Your task to perform on an android device: add a contact in the contacts app Image 0: 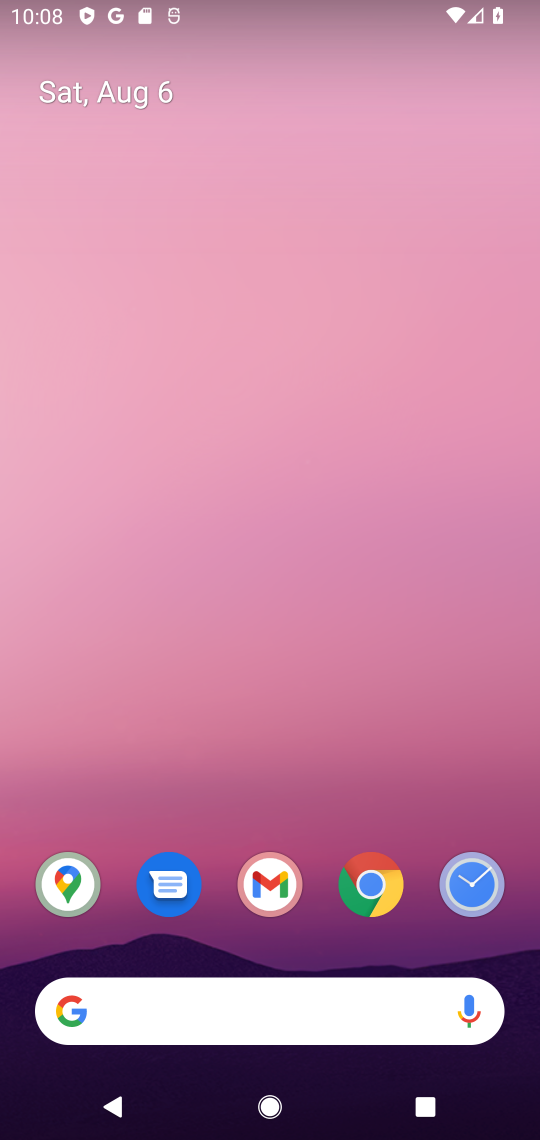
Step 0: drag from (426, 959) to (384, 193)
Your task to perform on an android device: add a contact in the contacts app Image 1: 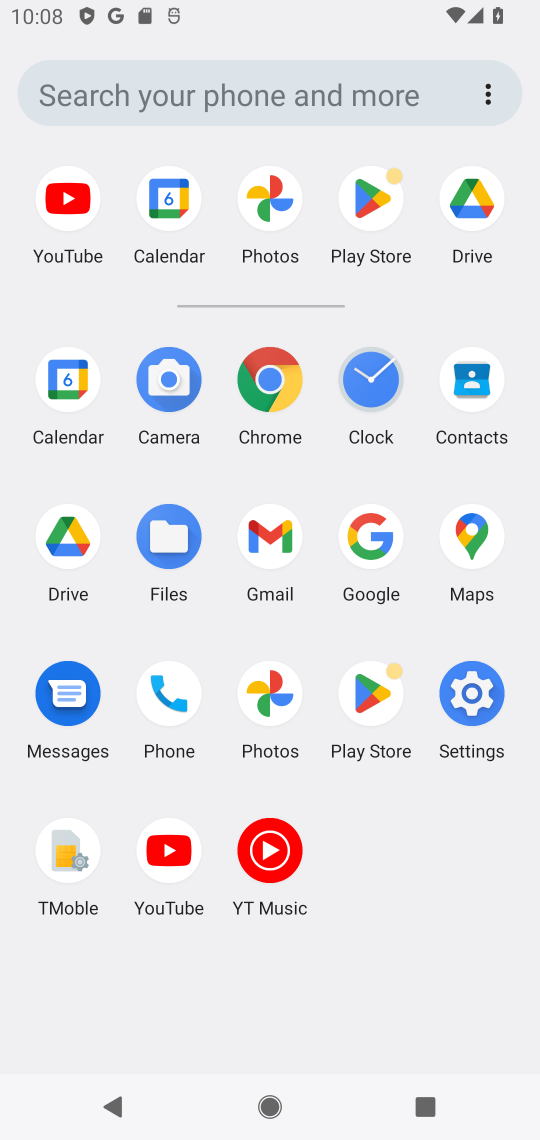
Step 1: click (466, 373)
Your task to perform on an android device: add a contact in the contacts app Image 2: 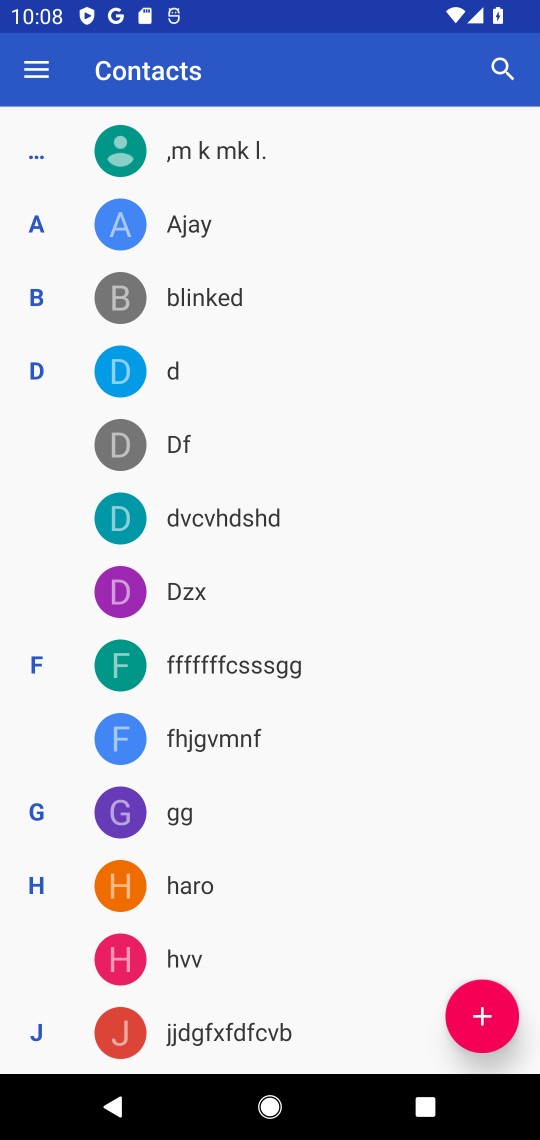
Step 2: click (482, 1015)
Your task to perform on an android device: add a contact in the contacts app Image 3: 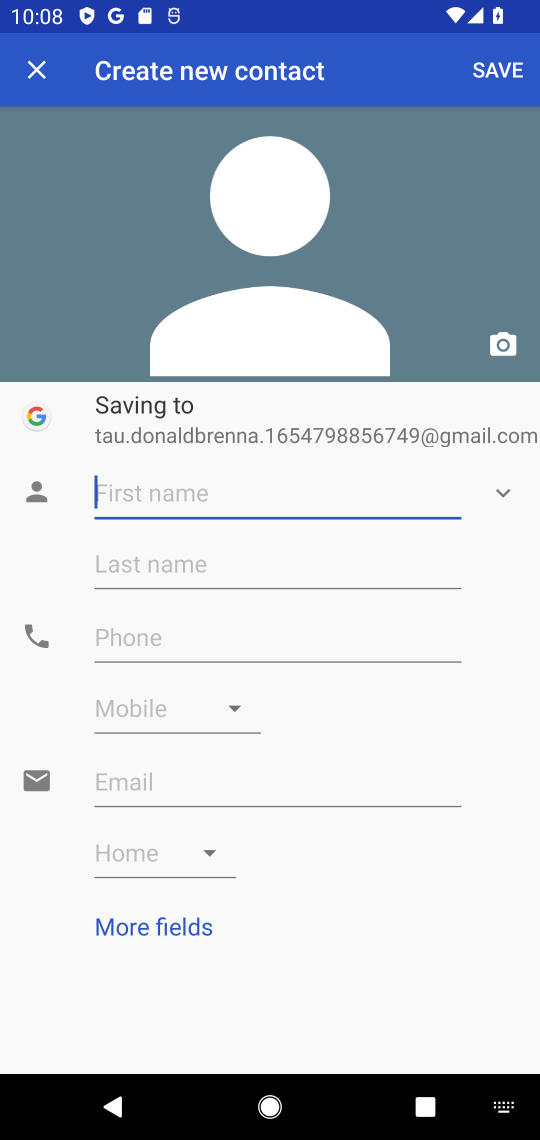
Step 3: type "mnbvsgft"
Your task to perform on an android device: add a contact in the contacts app Image 4: 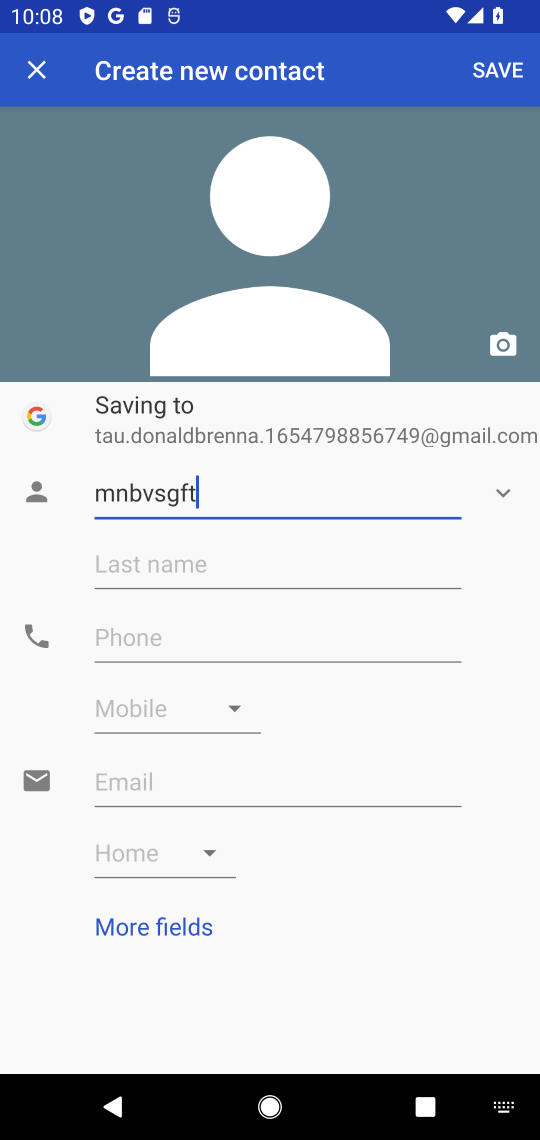
Step 4: click (173, 618)
Your task to perform on an android device: add a contact in the contacts app Image 5: 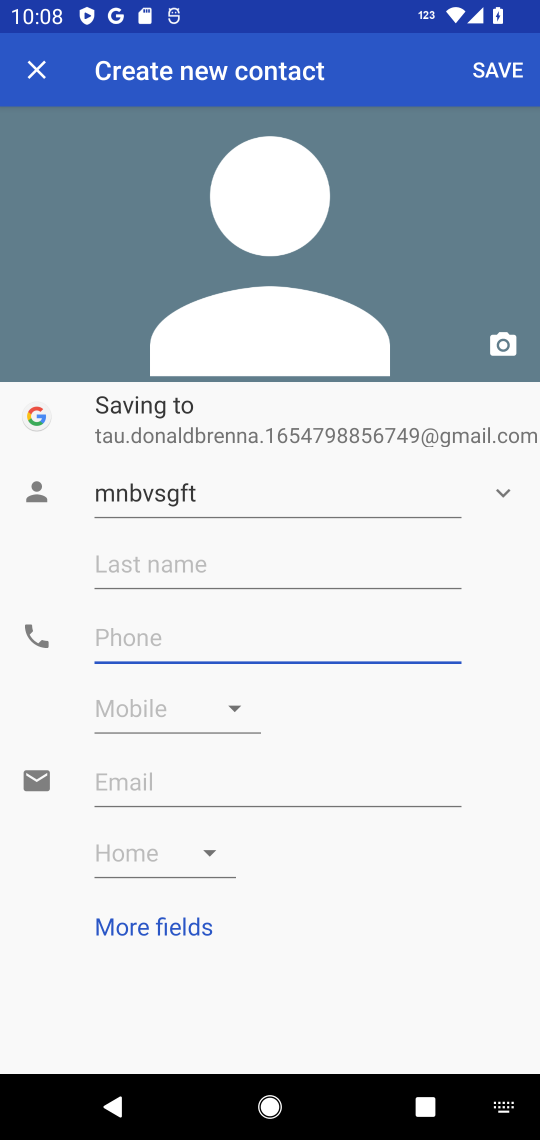
Step 5: type "09876543565"
Your task to perform on an android device: add a contact in the contacts app Image 6: 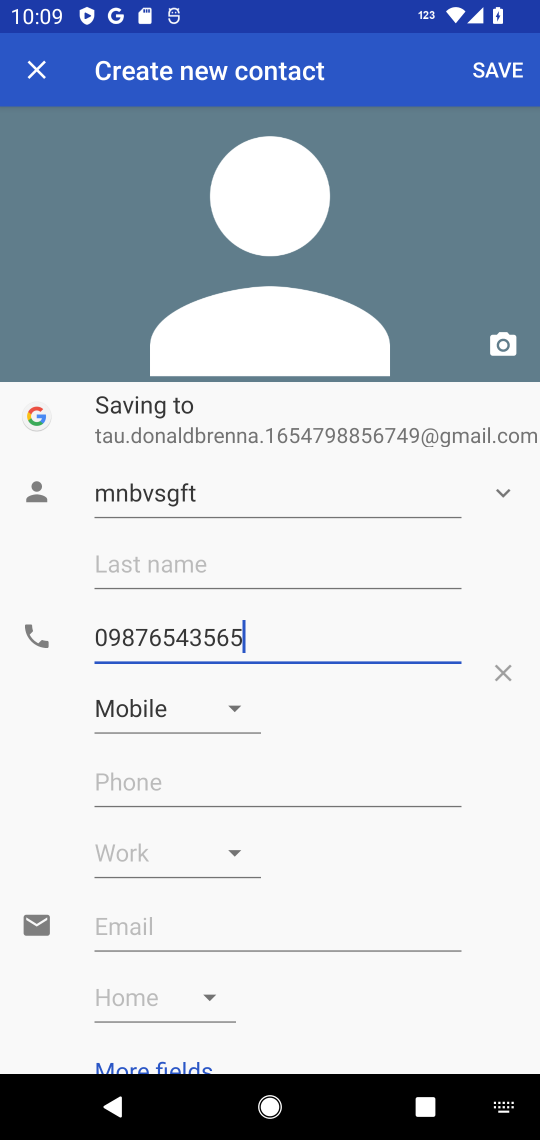
Step 6: click (494, 68)
Your task to perform on an android device: add a contact in the contacts app Image 7: 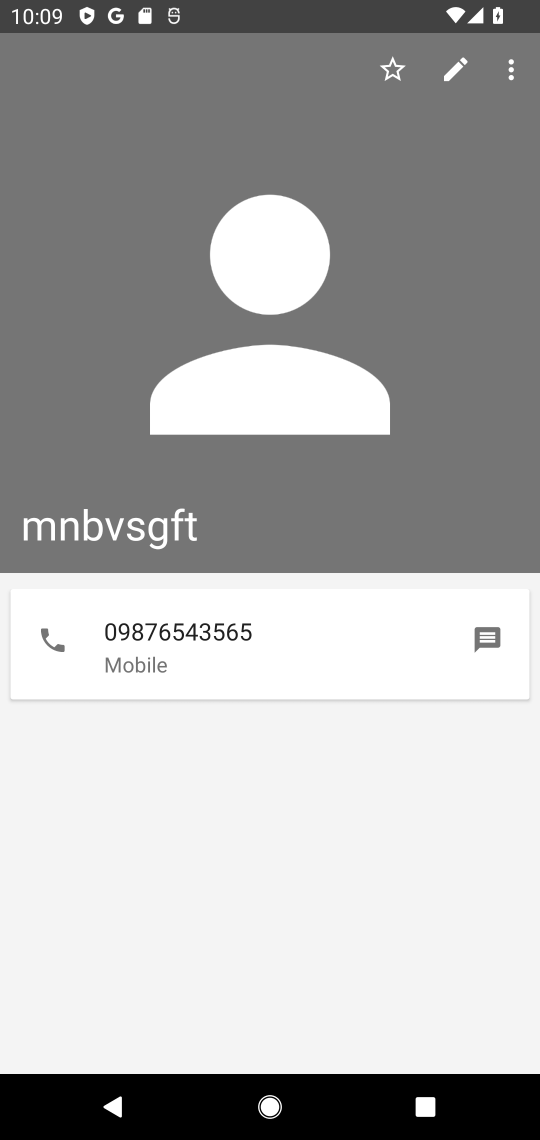
Step 7: task complete